Your task to perform on an android device: Show me recent news Image 0: 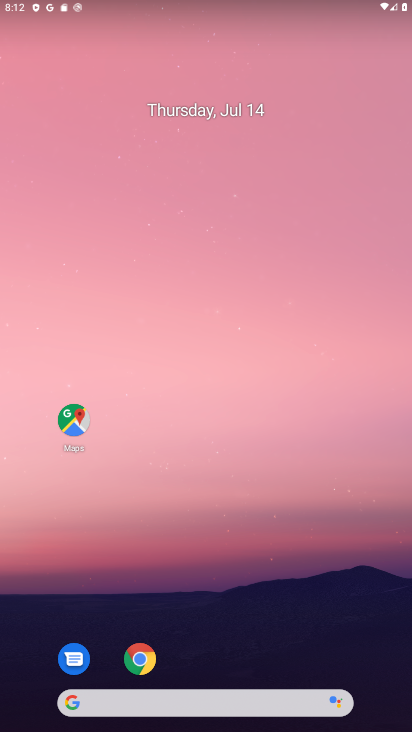
Step 0: drag from (188, 605) to (67, 70)
Your task to perform on an android device: Show me recent news Image 1: 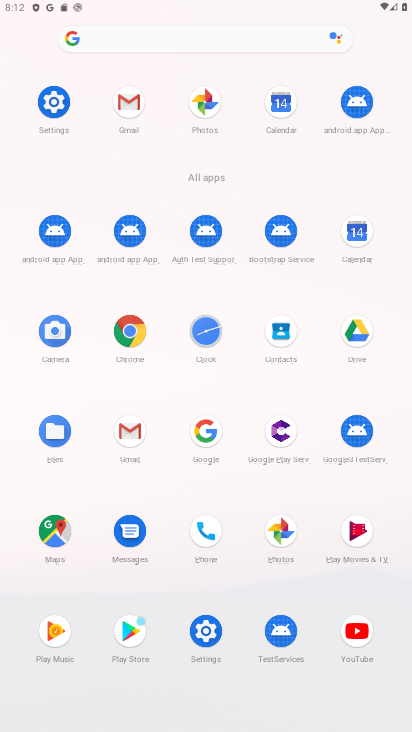
Step 1: click (219, 447)
Your task to perform on an android device: Show me recent news Image 2: 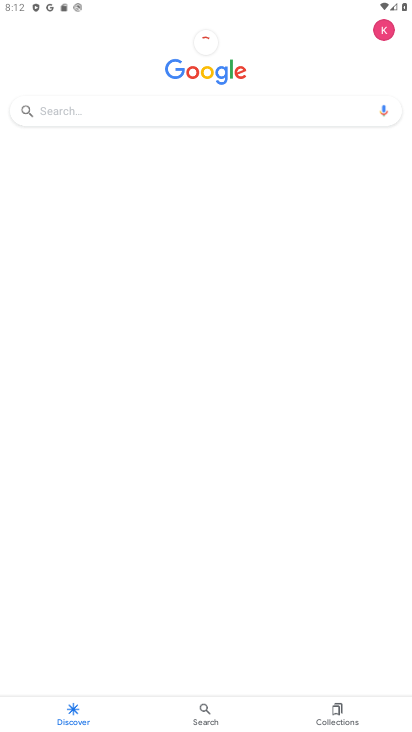
Step 2: click (194, 116)
Your task to perform on an android device: Show me recent news Image 3: 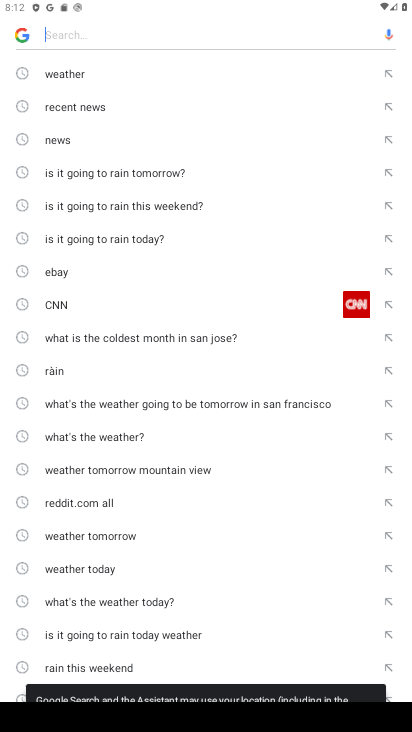
Step 3: click (91, 99)
Your task to perform on an android device: Show me recent news Image 4: 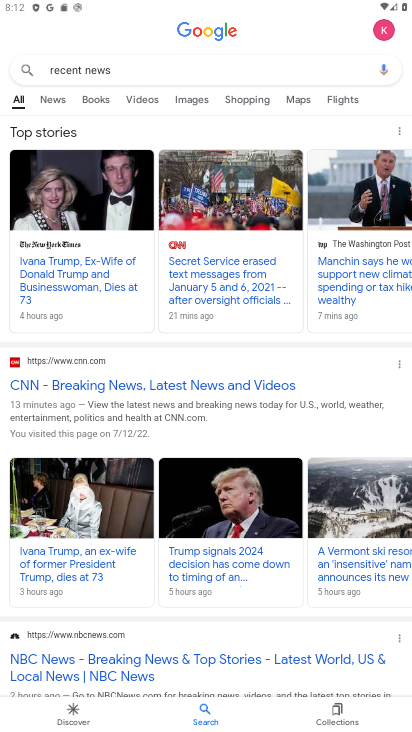
Step 4: task complete